Your task to perform on an android device: Check the weather Image 0: 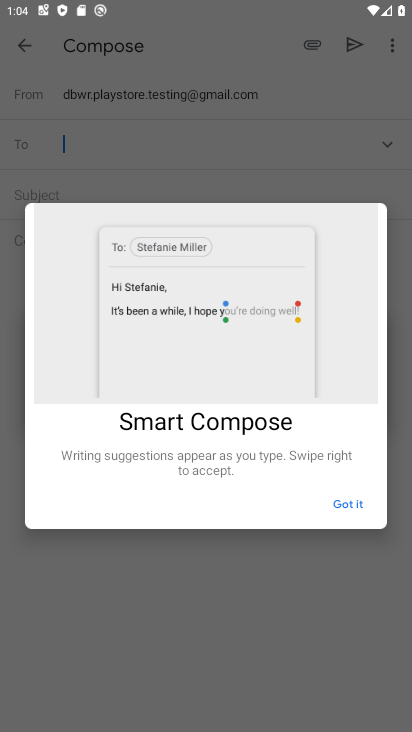
Step 0: press home button
Your task to perform on an android device: Check the weather Image 1: 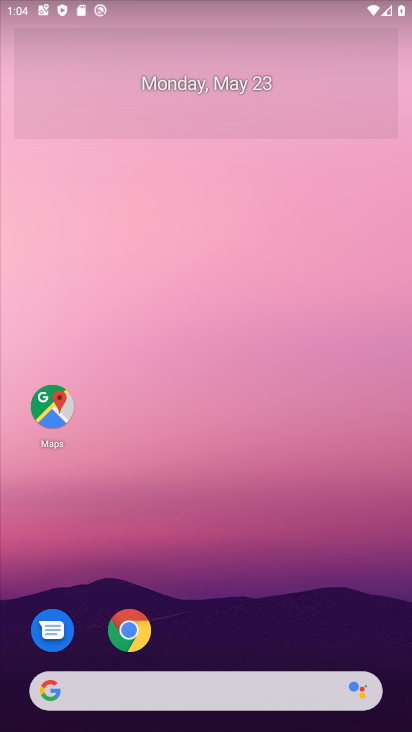
Step 1: drag from (382, 609) to (369, 183)
Your task to perform on an android device: Check the weather Image 2: 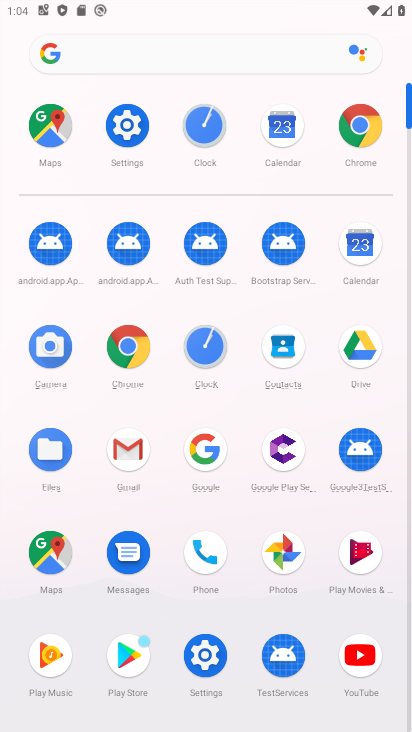
Step 2: click (125, 348)
Your task to perform on an android device: Check the weather Image 3: 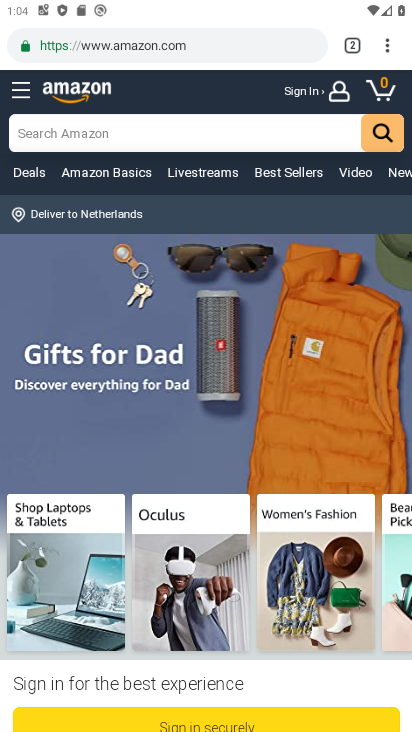
Step 3: click (161, 44)
Your task to perform on an android device: Check the weather Image 4: 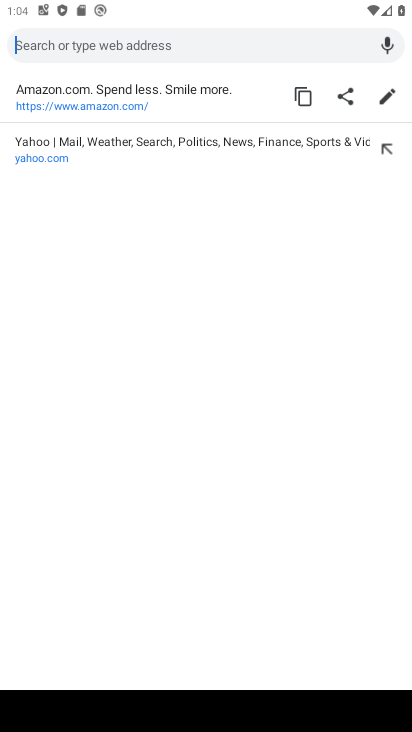
Step 4: type "check the weather"
Your task to perform on an android device: Check the weather Image 5: 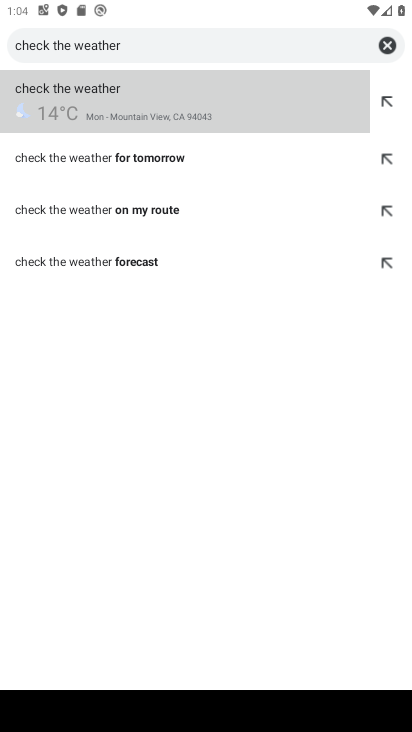
Step 5: click (177, 96)
Your task to perform on an android device: Check the weather Image 6: 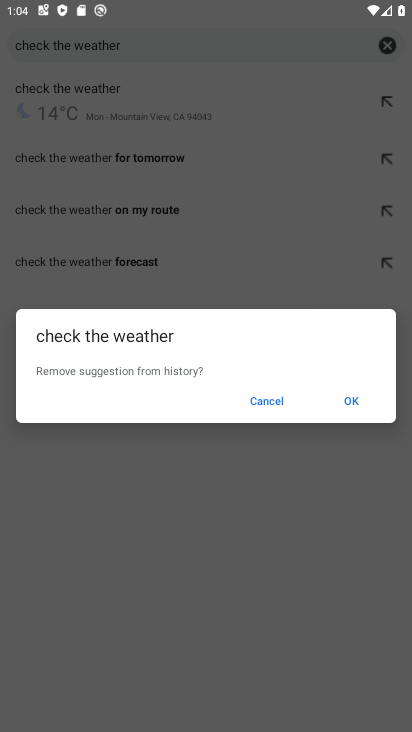
Step 6: click (360, 392)
Your task to perform on an android device: Check the weather Image 7: 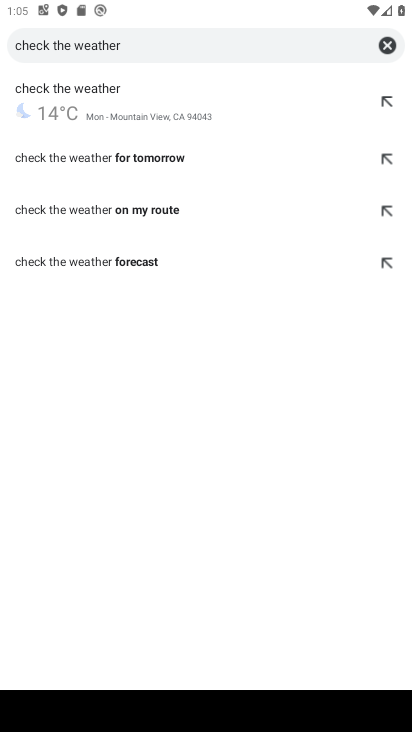
Step 7: click (147, 92)
Your task to perform on an android device: Check the weather Image 8: 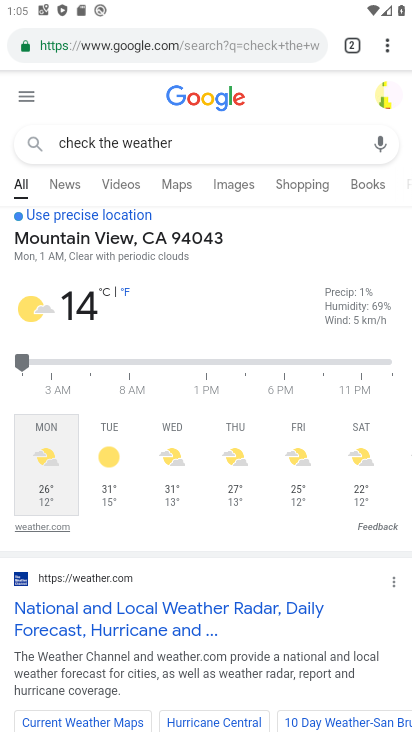
Step 8: task complete